Your task to perform on an android device: What's the weather today? Image 0: 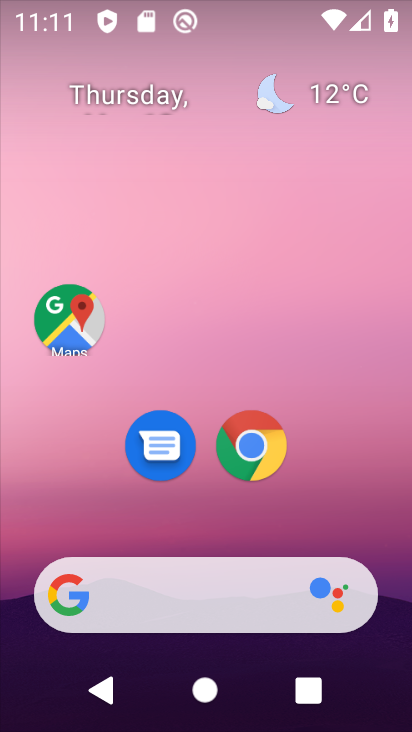
Step 0: click (331, 89)
Your task to perform on an android device: What's the weather today? Image 1: 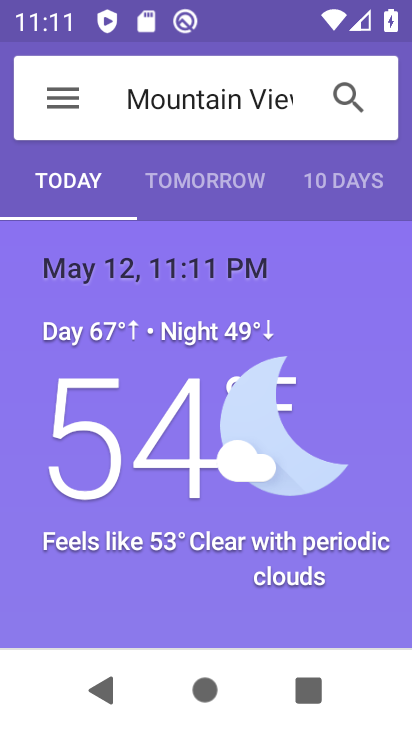
Step 1: task complete